Your task to perform on an android device: turn on showing notifications on the lock screen Image 0: 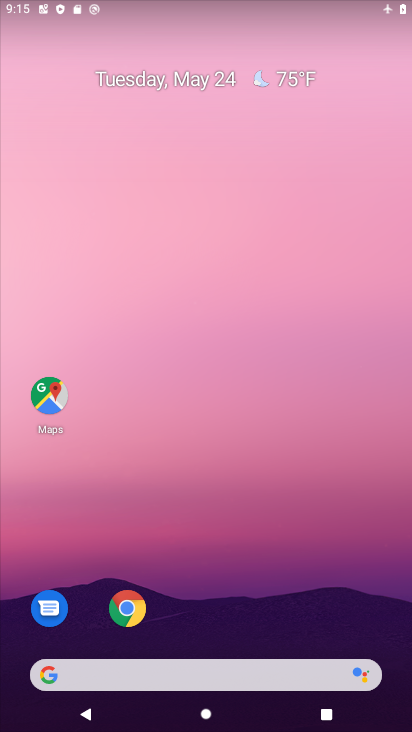
Step 0: drag from (262, 430) to (201, 38)
Your task to perform on an android device: turn on showing notifications on the lock screen Image 1: 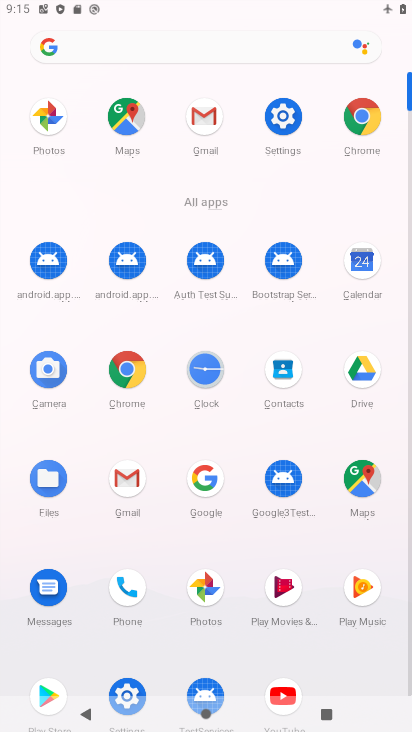
Step 1: click (280, 116)
Your task to perform on an android device: turn on showing notifications on the lock screen Image 2: 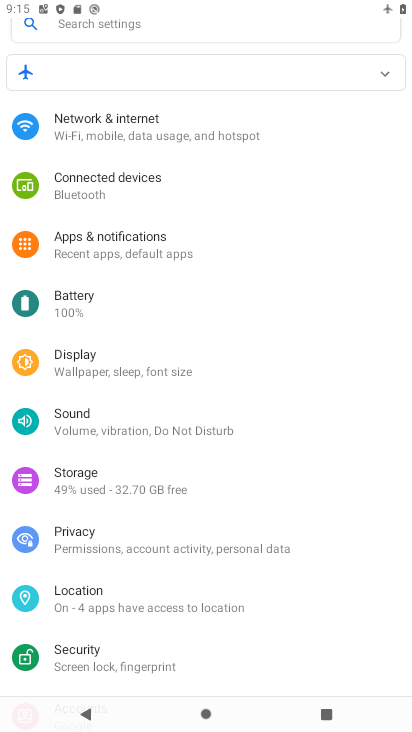
Step 2: click (194, 251)
Your task to perform on an android device: turn on showing notifications on the lock screen Image 3: 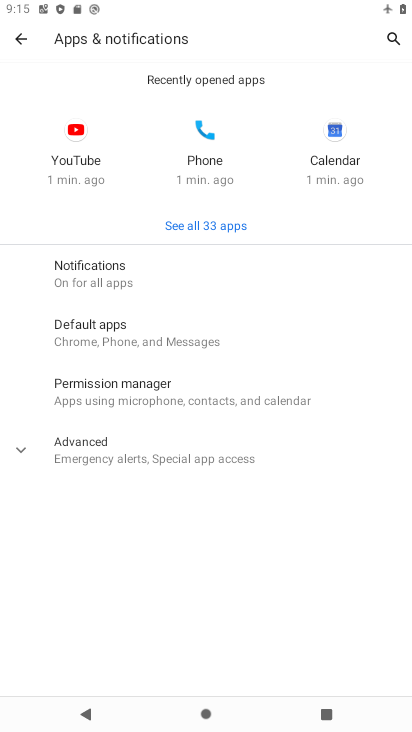
Step 3: click (140, 281)
Your task to perform on an android device: turn on showing notifications on the lock screen Image 4: 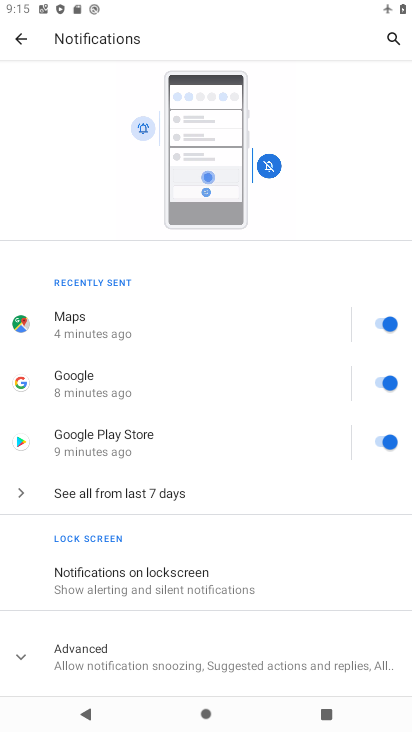
Step 4: click (210, 569)
Your task to perform on an android device: turn on showing notifications on the lock screen Image 5: 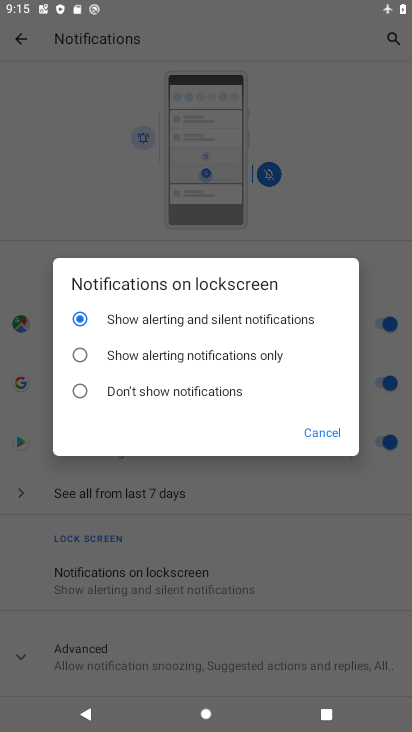
Step 5: task complete